Your task to perform on an android device: Find coffee shops on Maps Image 0: 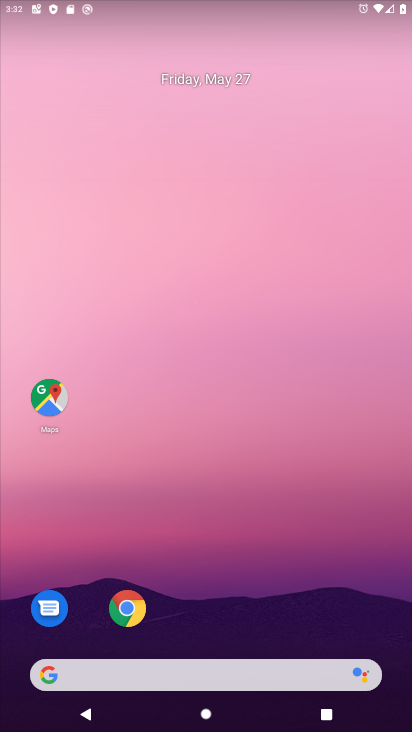
Step 0: drag from (199, 387) to (199, 297)
Your task to perform on an android device: Find coffee shops on Maps Image 1: 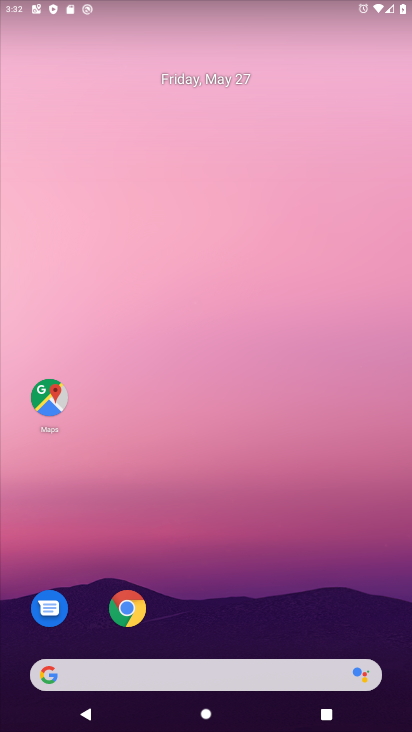
Step 1: click (41, 417)
Your task to perform on an android device: Find coffee shops on Maps Image 2: 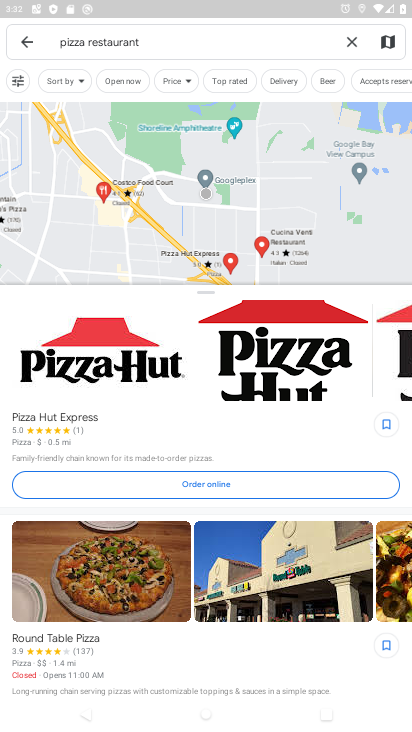
Step 2: click (187, 42)
Your task to perform on an android device: Find coffee shops on Maps Image 3: 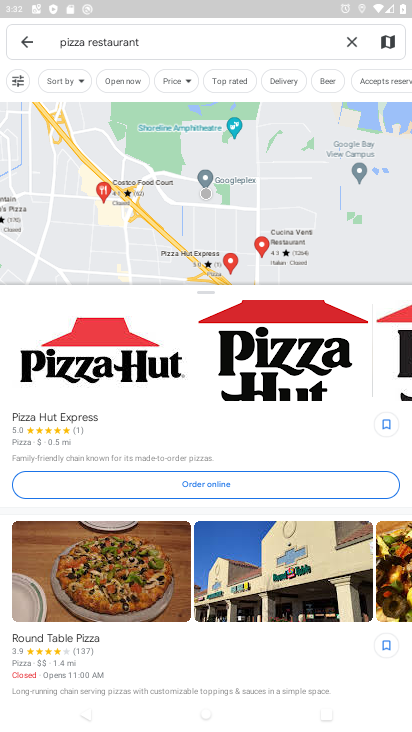
Step 3: click (356, 42)
Your task to perform on an android device: Find coffee shops on Maps Image 4: 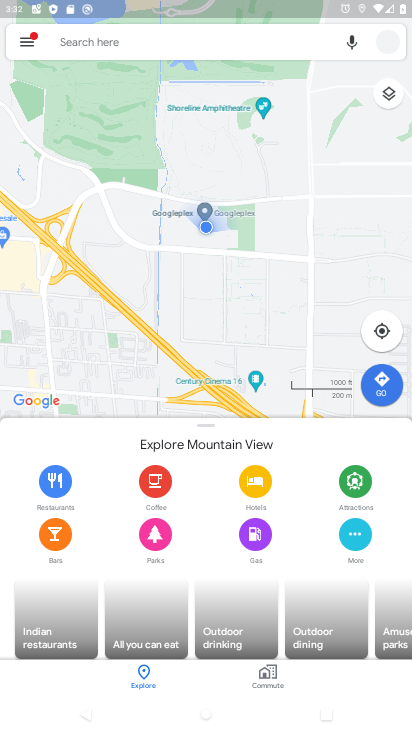
Step 4: click (141, 43)
Your task to perform on an android device: Find coffee shops on Maps Image 5: 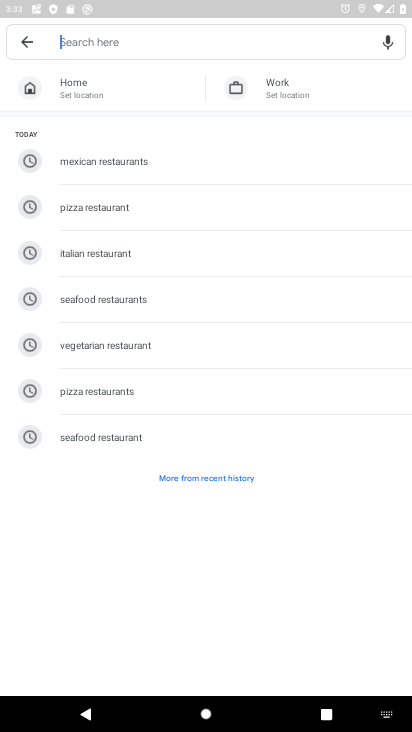
Step 5: click (178, 477)
Your task to perform on an android device: Find coffee shops on Maps Image 6: 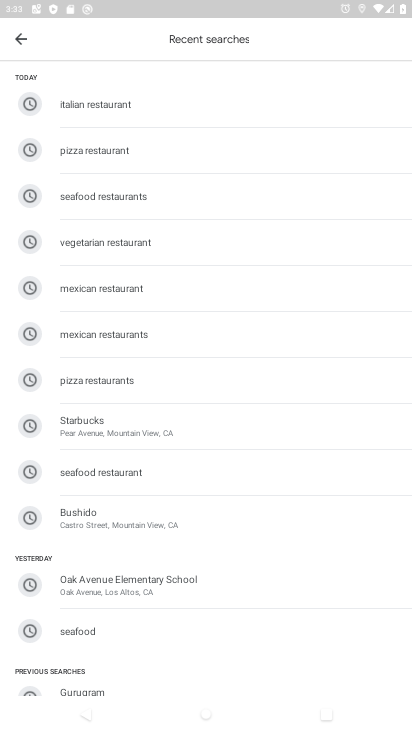
Step 6: type "coffee shopes"
Your task to perform on an android device: Find coffee shops on Maps Image 7: 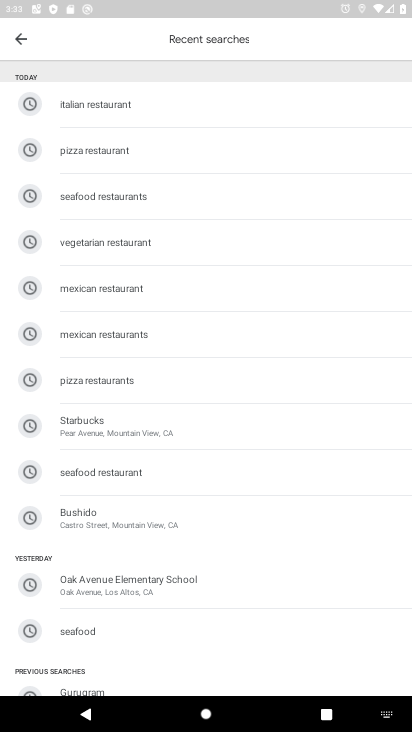
Step 7: click (17, 41)
Your task to perform on an android device: Find coffee shops on Maps Image 8: 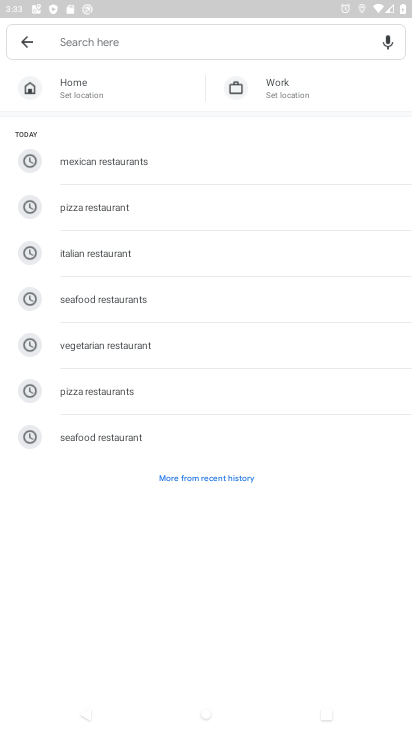
Step 8: click (76, 42)
Your task to perform on an android device: Find coffee shops on Maps Image 9: 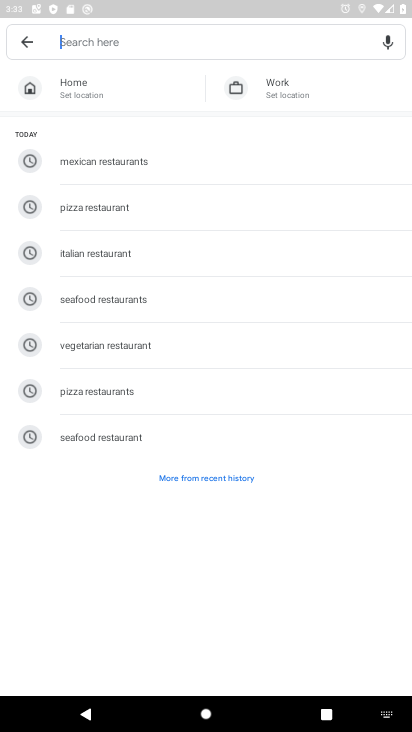
Step 9: click (203, 479)
Your task to perform on an android device: Find coffee shops on Maps Image 10: 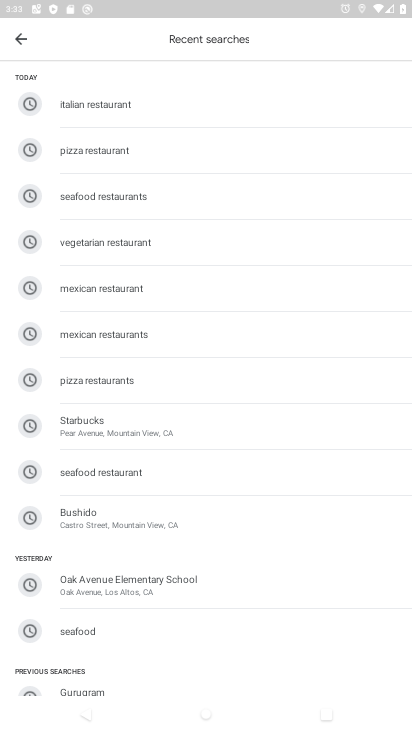
Step 10: click (22, 40)
Your task to perform on an android device: Find coffee shops on Maps Image 11: 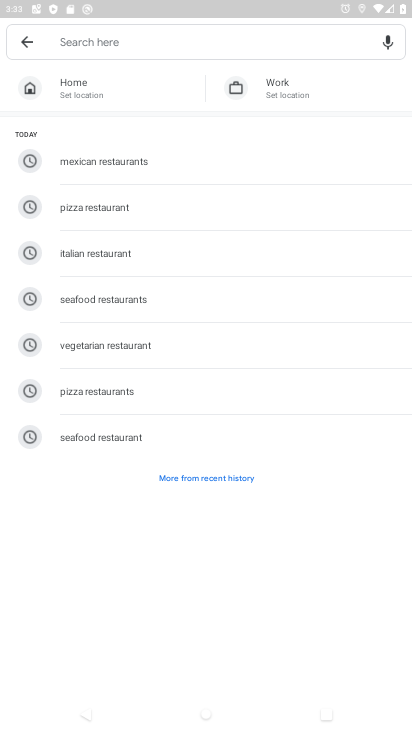
Step 11: click (100, 43)
Your task to perform on an android device: Find coffee shops on Maps Image 12: 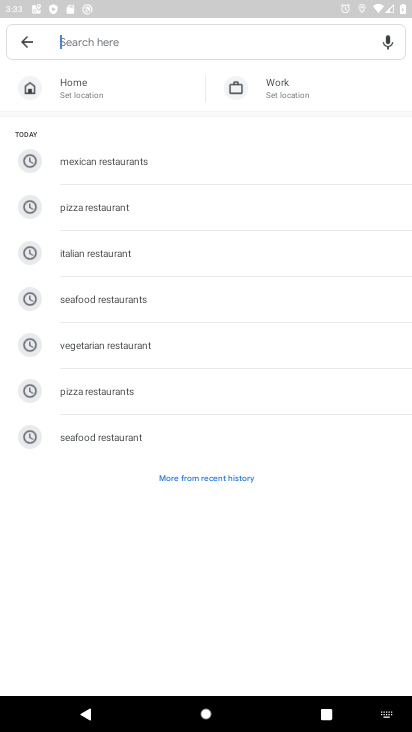
Step 12: type "coffee shopes"
Your task to perform on an android device: Find coffee shops on Maps Image 13: 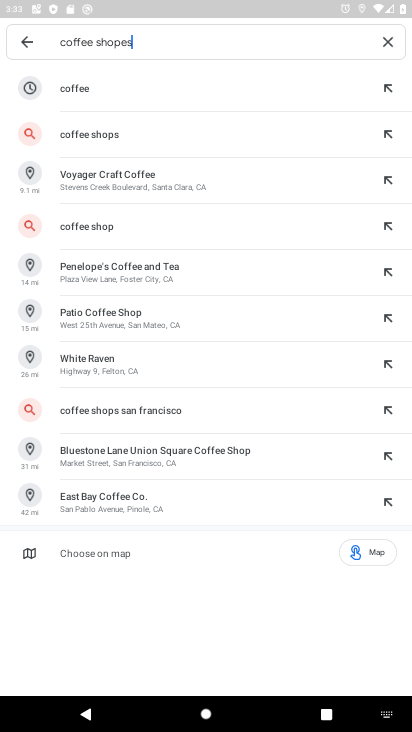
Step 13: click (115, 130)
Your task to perform on an android device: Find coffee shops on Maps Image 14: 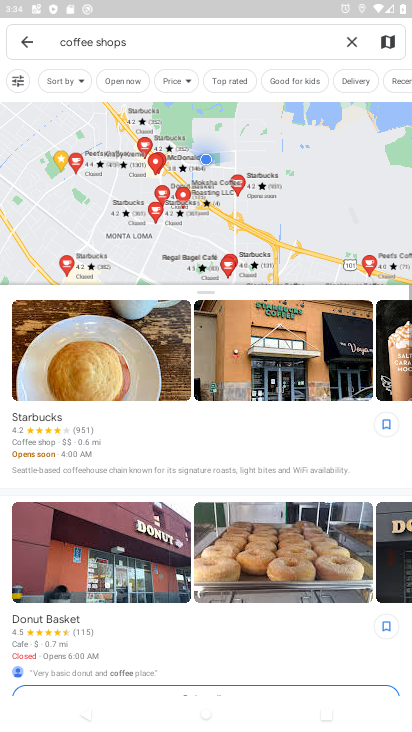
Step 14: task complete